Your task to perform on an android device: Empty the shopping cart on target. Image 0: 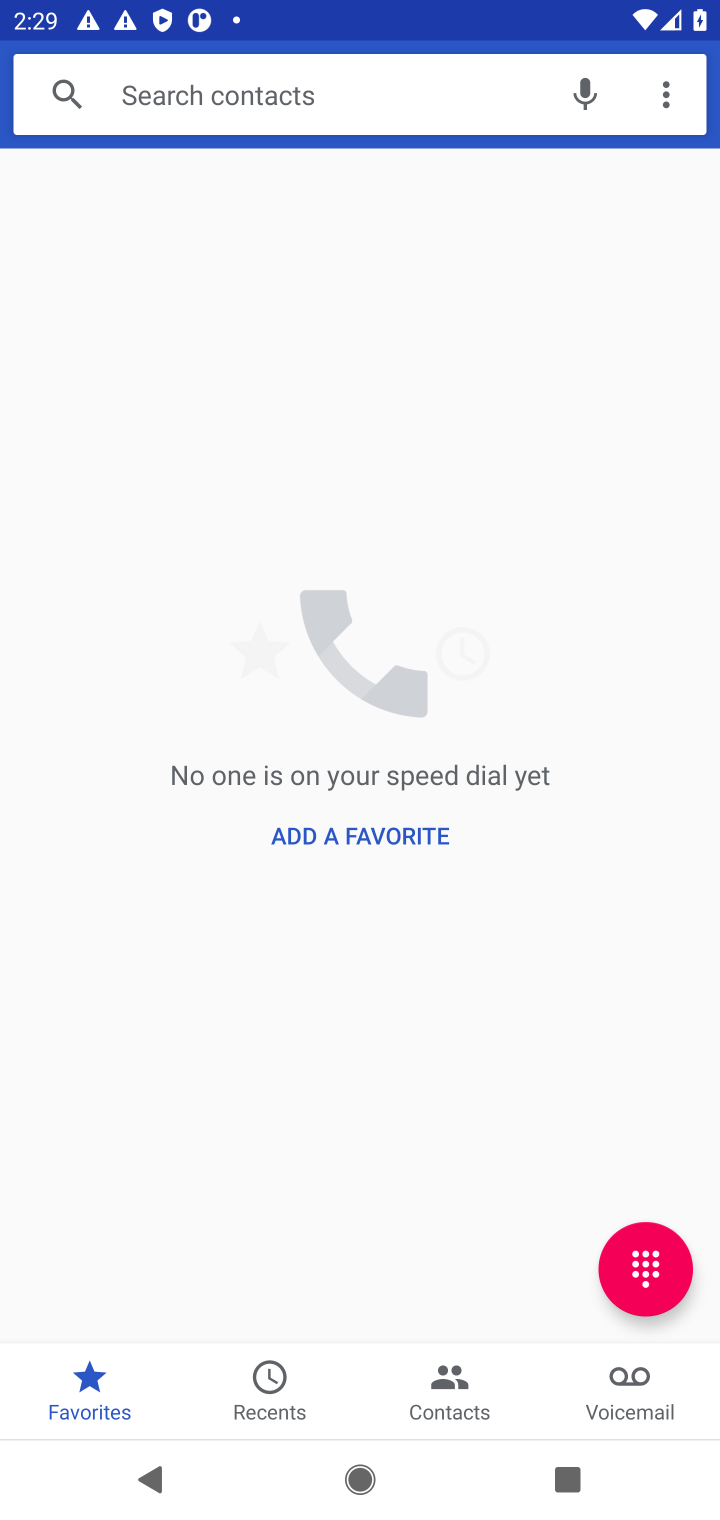
Step 0: press home button
Your task to perform on an android device: Empty the shopping cart on target. Image 1: 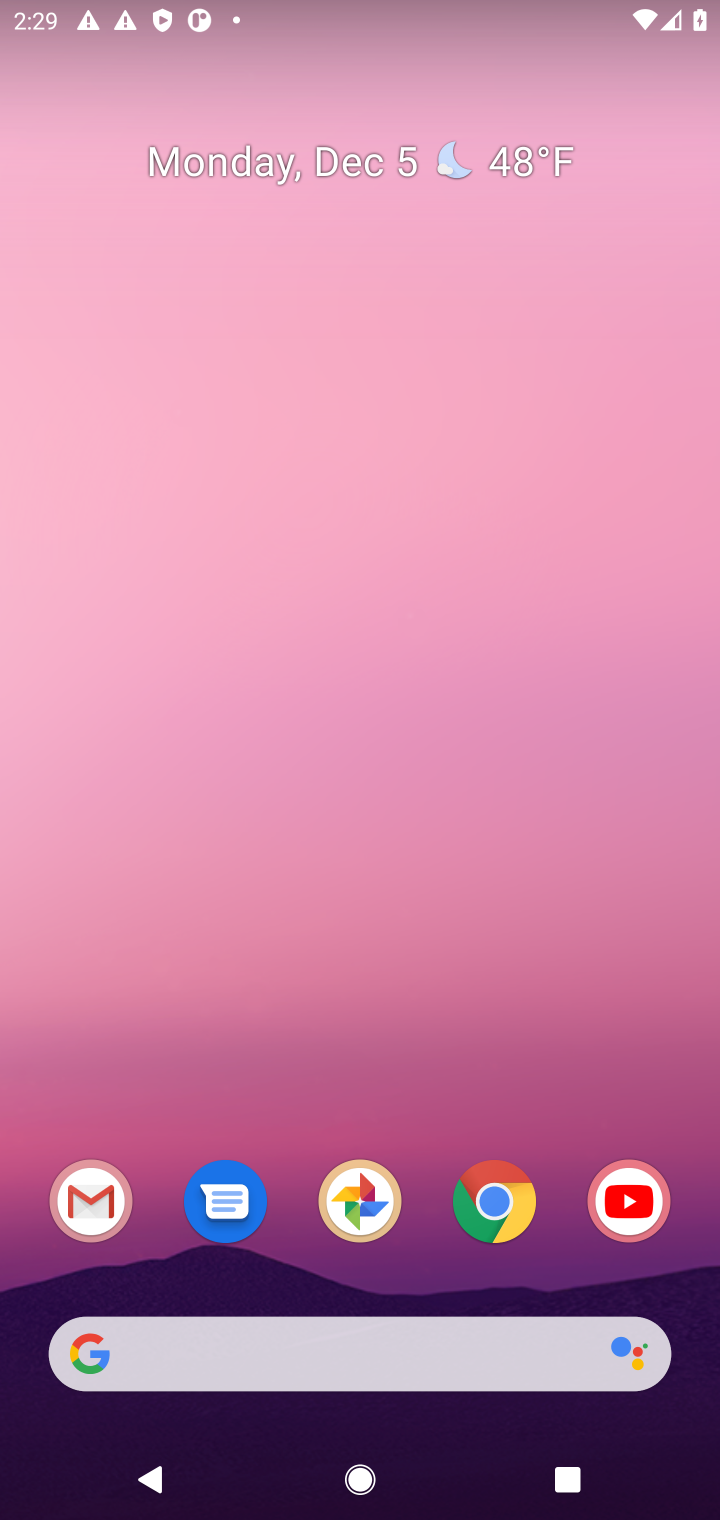
Step 1: click (486, 1205)
Your task to perform on an android device: Empty the shopping cart on target. Image 2: 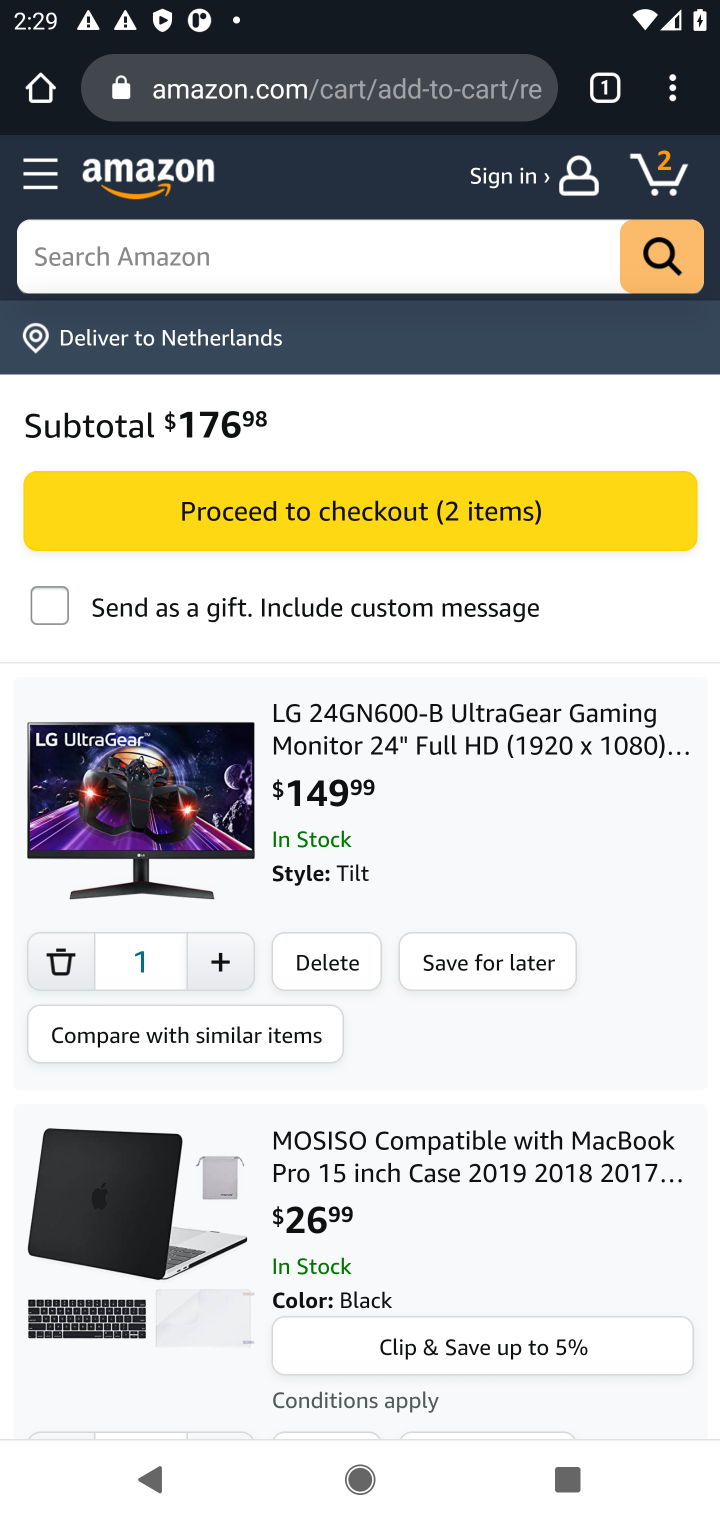
Step 2: click (452, 88)
Your task to perform on an android device: Empty the shopping cart on target. Image 3: 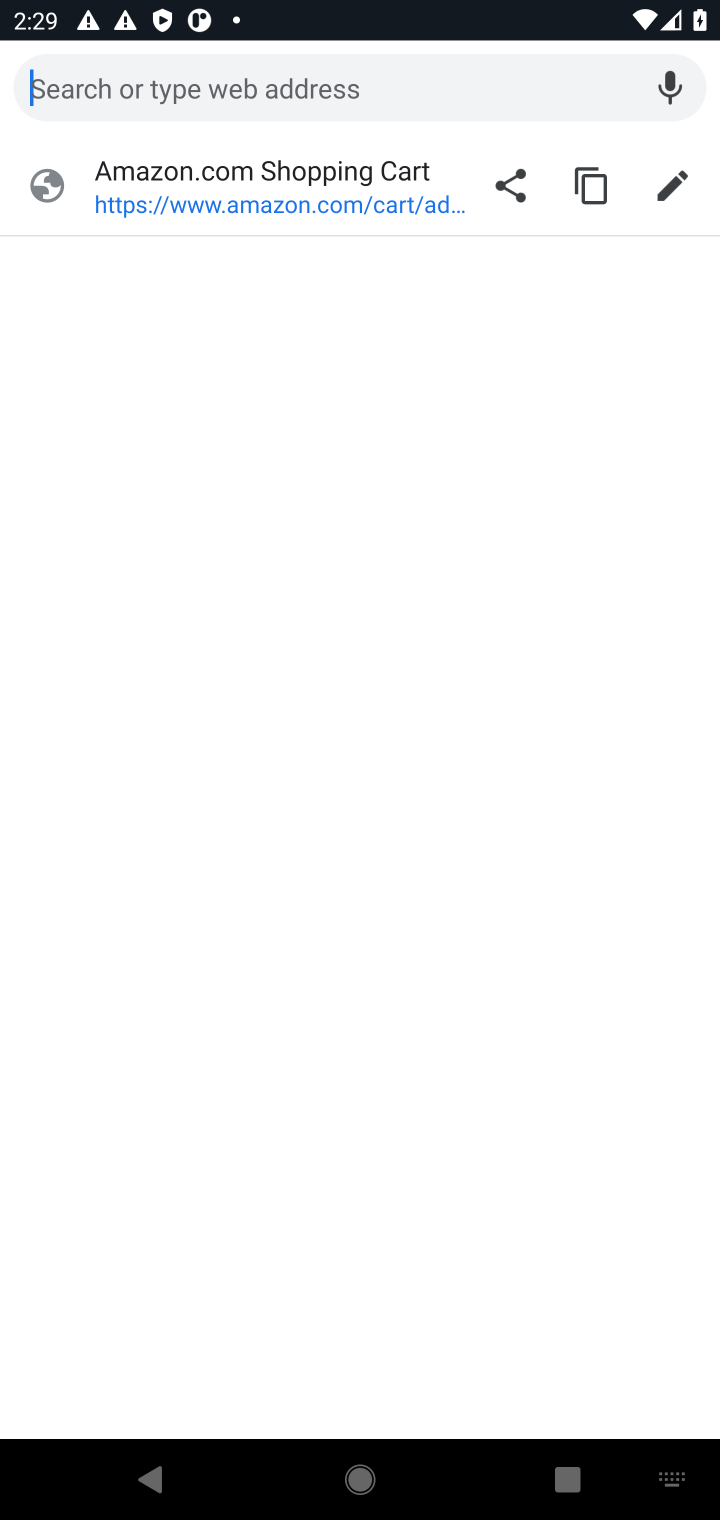
Step 3: type "target"
Your task to perform on an android device: Empty the shopping cart on target. Image 4: 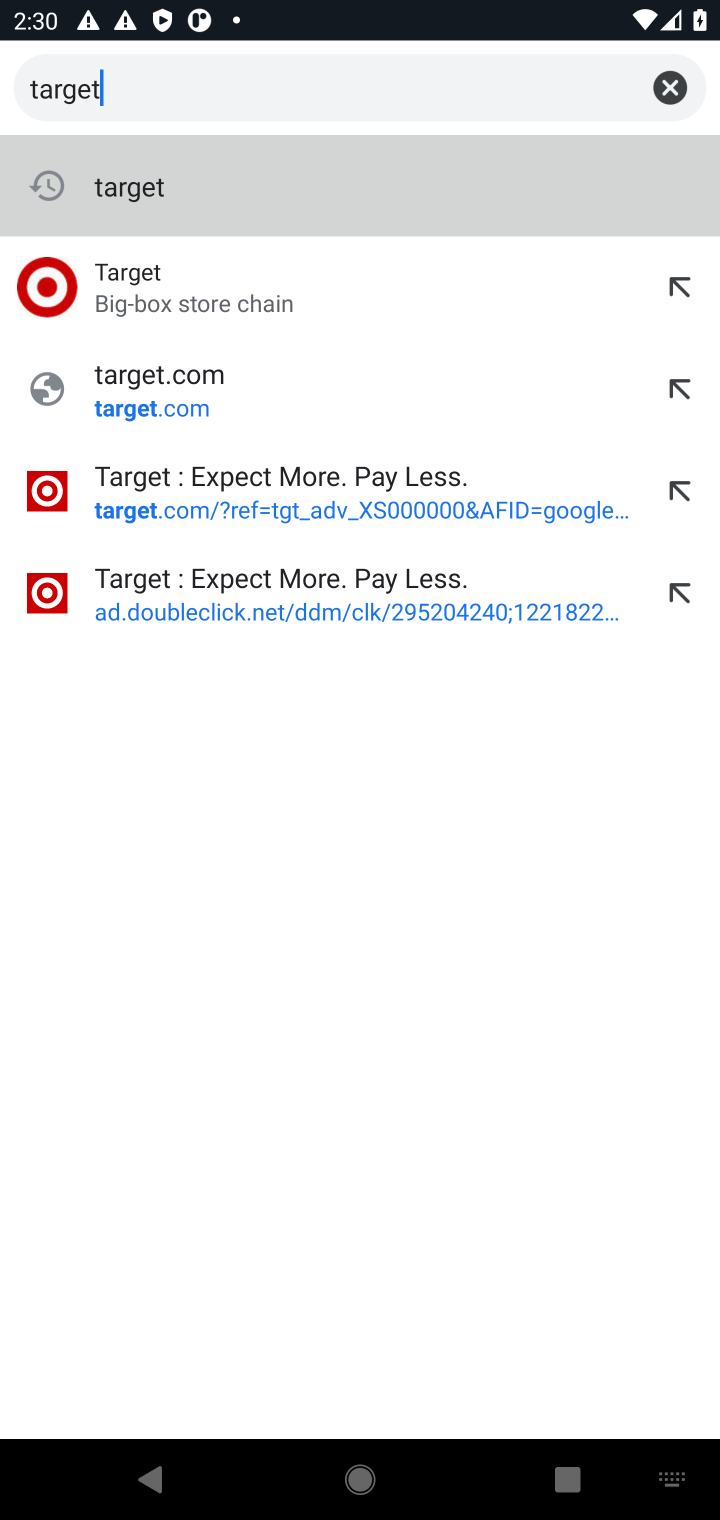
Step 4: click (229, 293)
Your task to perform on an android device: Empty the shopping cart on target. Image 5: 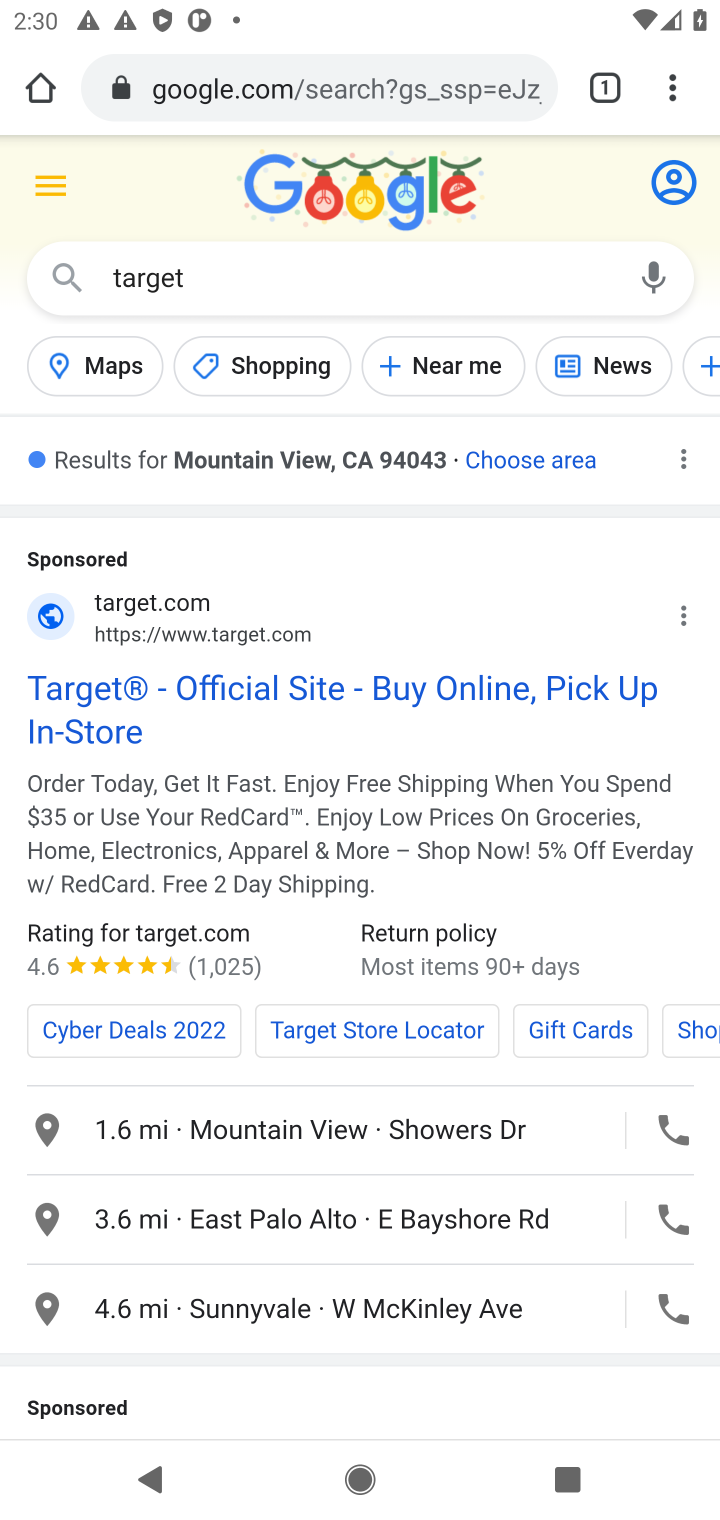
Step 5: click (184, 697)
Your task to perform on an android device: Empty the shopping cart on target. Image 6: 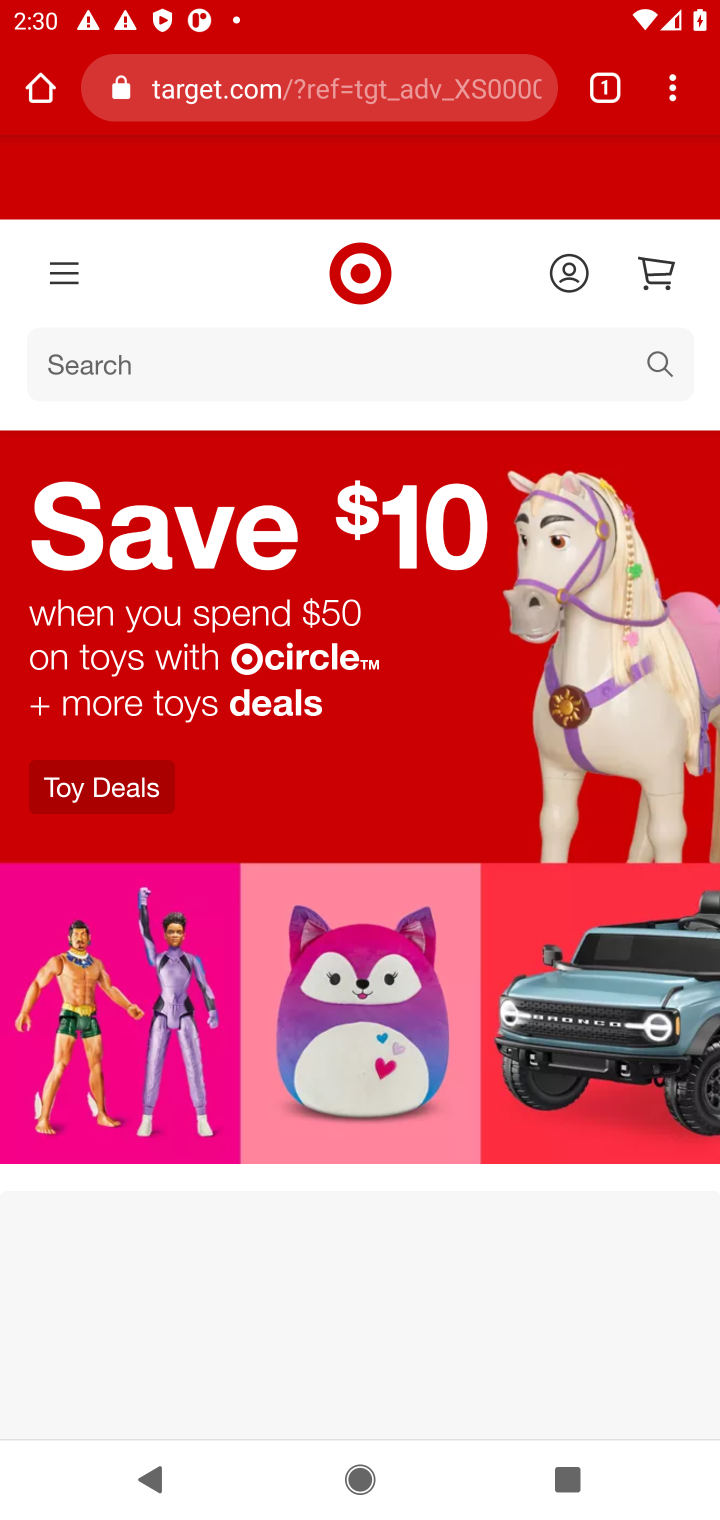
Step 6: click (651, 264)
Your task to perform on an android device: Empty the shopping cart on target. Image 7: 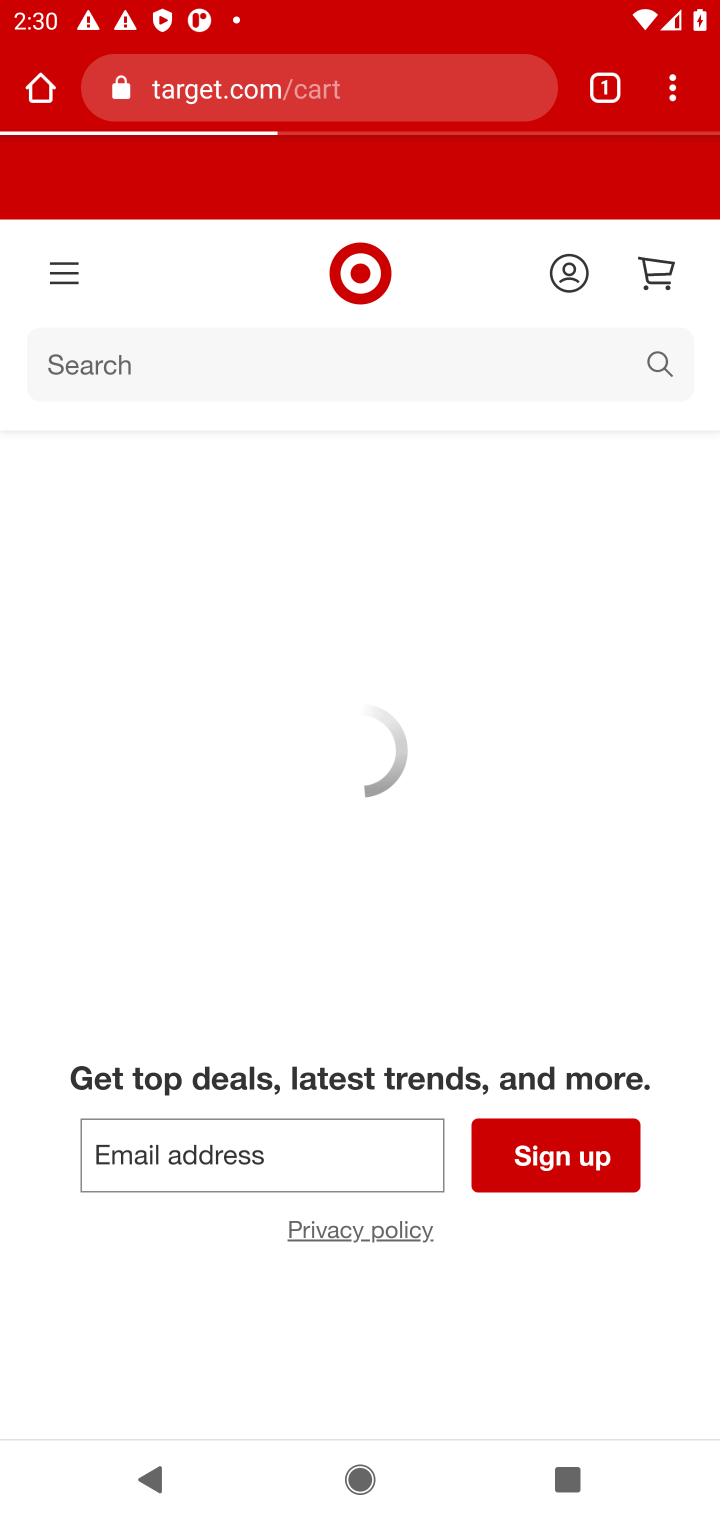
Step 7: task complete